Your task to perform on an android device: Go to Google maps Image 0: 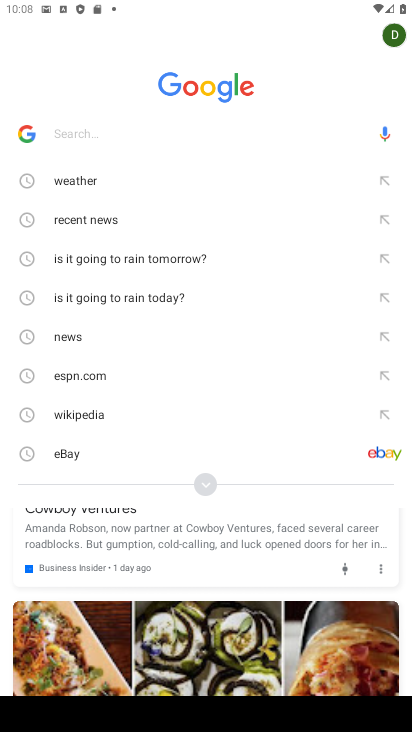
Step 0: press home button
Your task to perform on an android device: Go to Google maps Image 1: 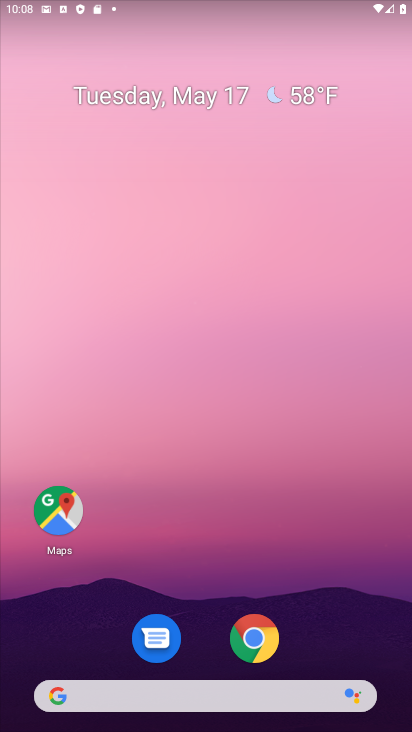
Step 1: click (57, 516)
Your task to perform on an android device: Go to Google maps Image 2: 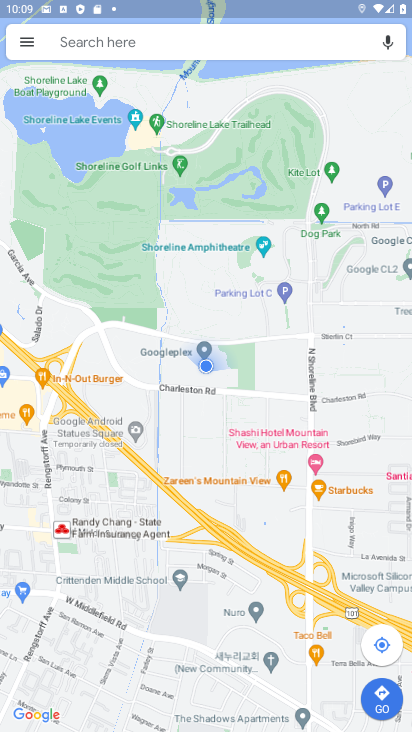
Step 2: task complete